Your task to perform on an android device: Search for vegetarian restaurants on Maps Image 0: 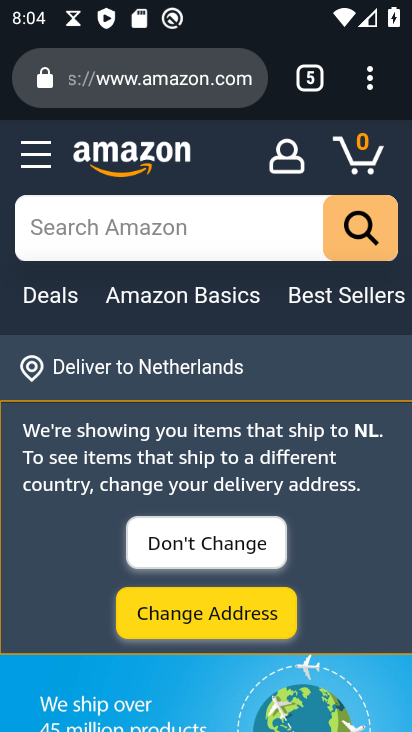
Step 0: press back button
Your task to perform on an android device: Search for vegetarian restaurants on Maps Image 1: 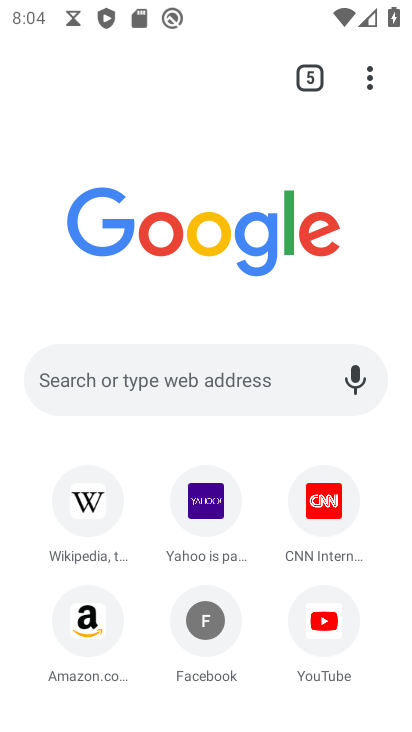
Step 1: press back button
Your task to perform on an android device: Search for vegetarian restaurants on Maps Image 2: 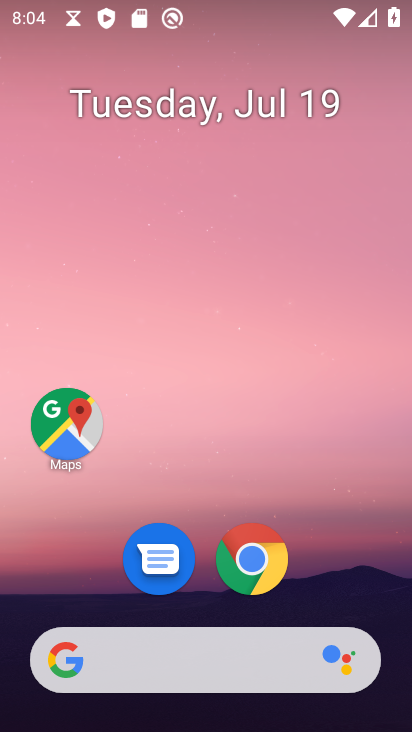
Step 2: click (76, 421)
Your task to perform on an android device: Search for vegetarian restaurants on Maps Image 3: 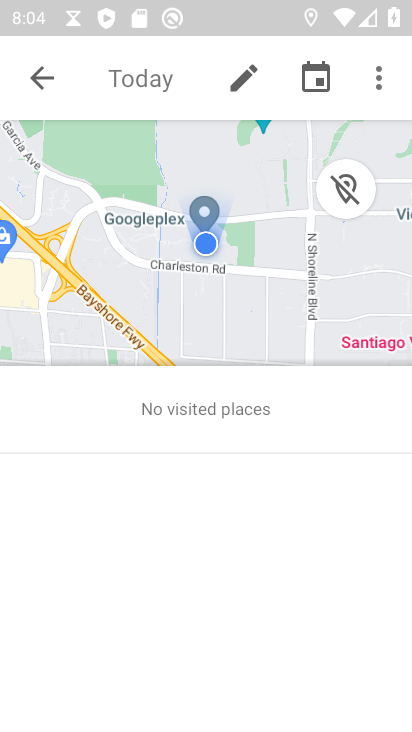
Step 3: click (37, 62)
Your task to perform on an android device: Search for vegetarian restaurants on Maps Image 4: 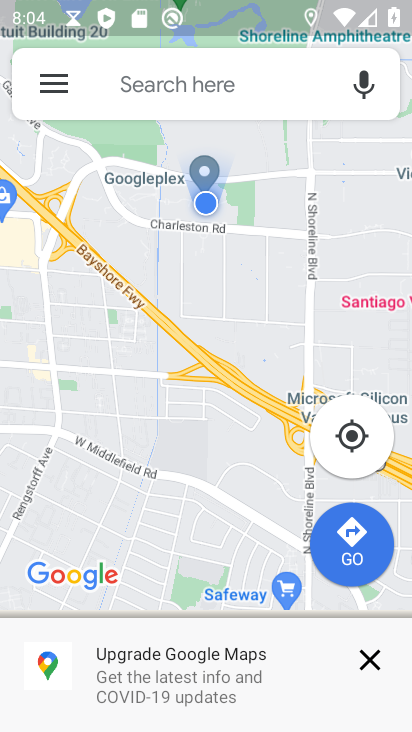
Step 4: click (169, 96)
Your task to perform on an android device: Search for vegetarian restaurants on Maps Image 5: 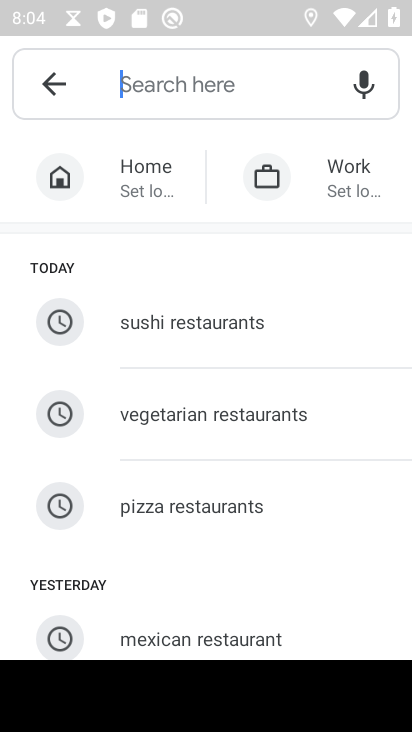
Step 5: click (146, 429)
Your task to perform on an android device: Search for vegetarian restaurants on Maps Image 6: 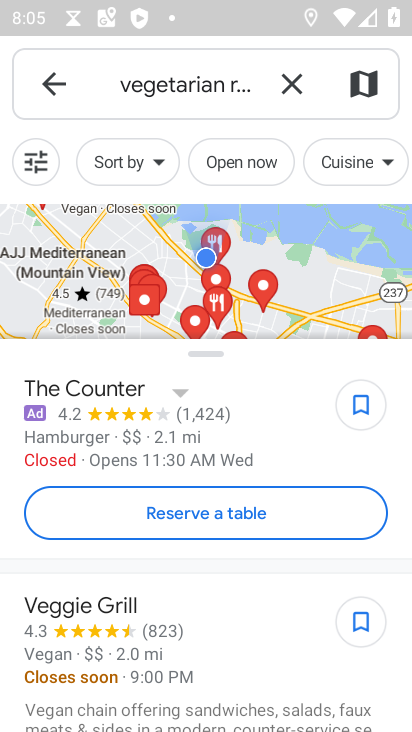
Step 6: task complete